Your task to perform on an android device: check the backup settings in the google photos Image 0: 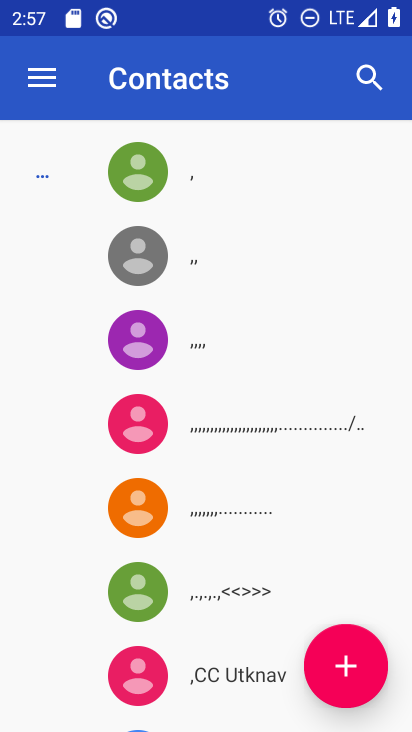
Step 0: press home button
Your task to perform on an android device: check the backup settings in the google photos Image 1: 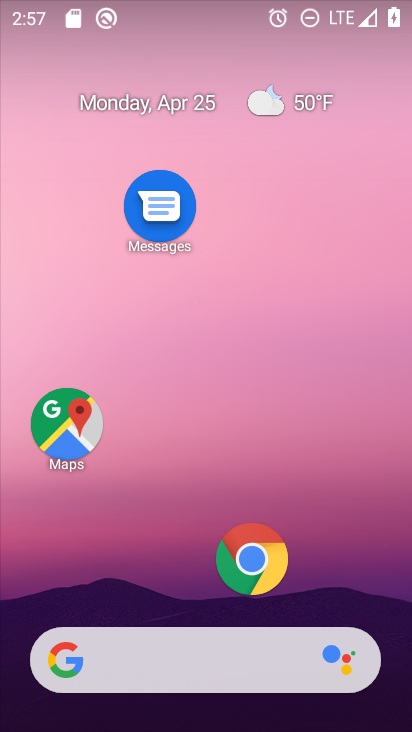
Step 1: drag from (182, 516) to (201, 70)
Your task to perform on an android device: check the backup settings in the google photos Image 2: 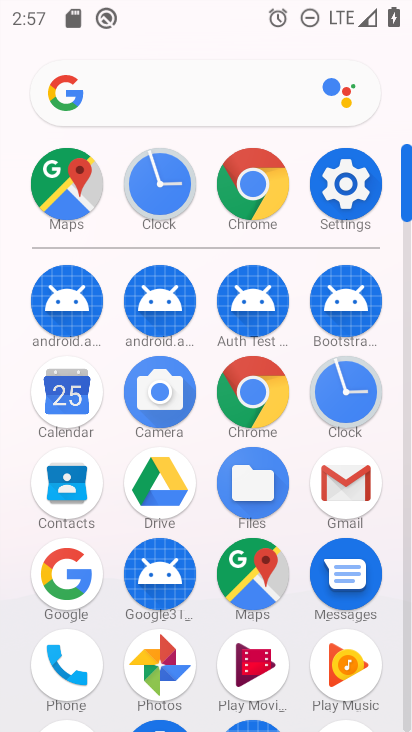
Step 2: click (176, 661)
Your task to perform on an android device: check the backup settings in the google photos Image 3: 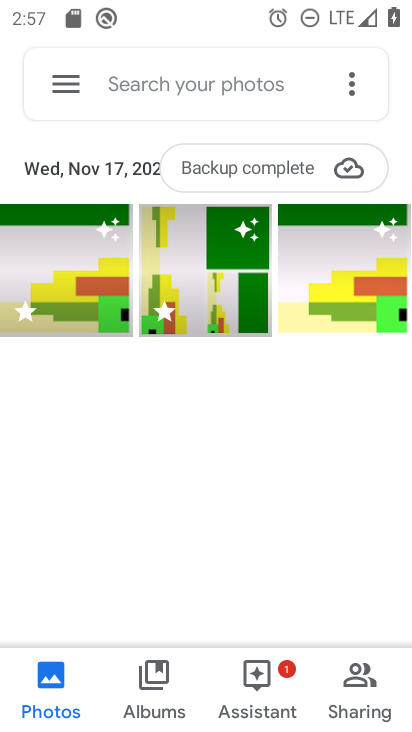
Step 3: click (57, 90)
Your task to perform on an android device: check the backup settings in the google photos Image 4: 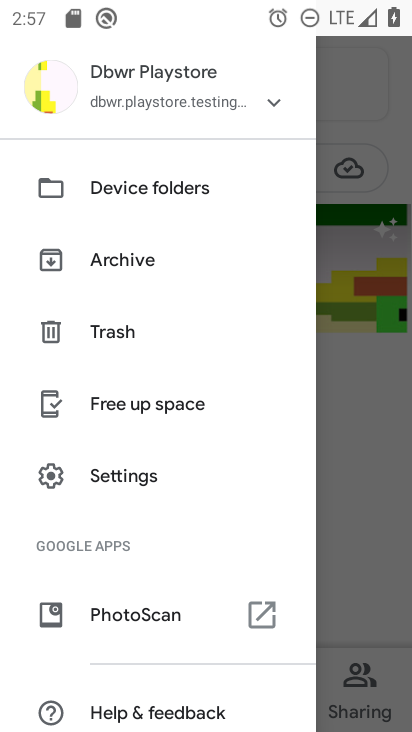
Step 4: click (128, 487)
Your task to perform on an android device: check the backup settings in the google photos Image 5: 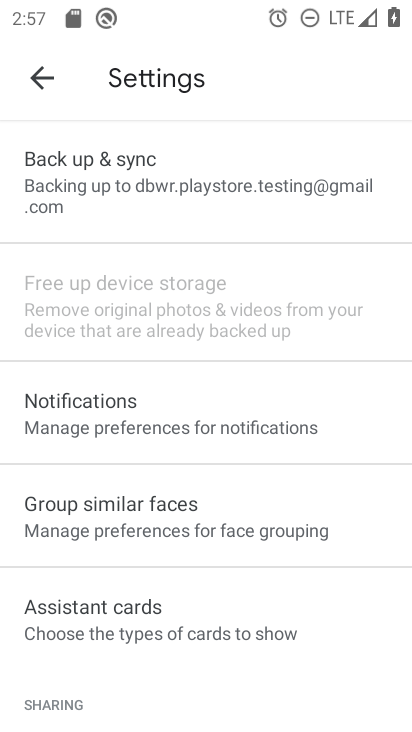
Step 5: click (166, 192)
Your task to perform on an android device: check the backup settings in the google photos Image 6: 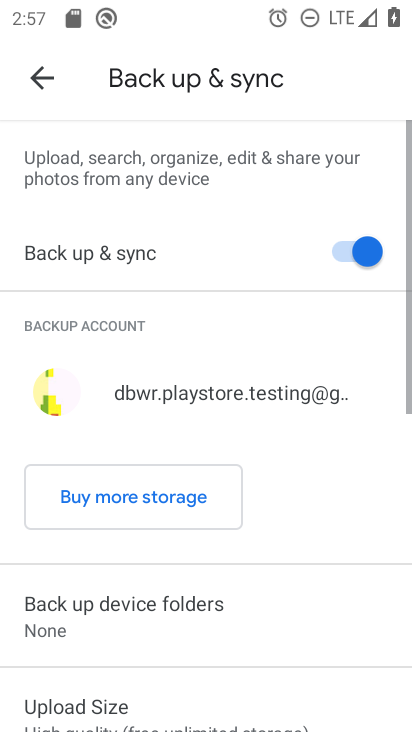
Step 6: task complete